Your task to perform on an android device: change the clock style Image 0: 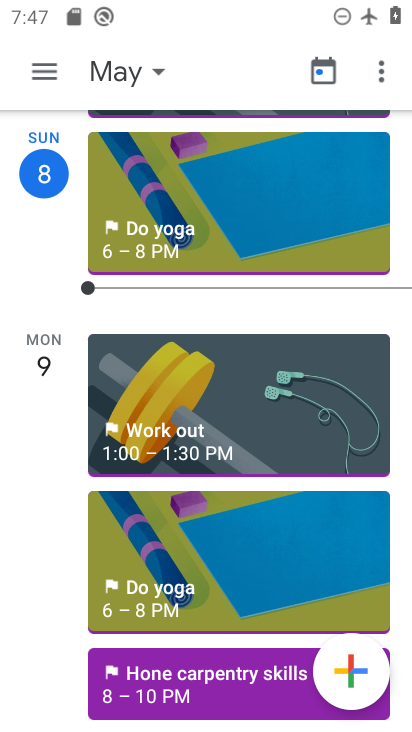
Step 0: press home button
Your task to perform on an android device: change the clock style Image 1: 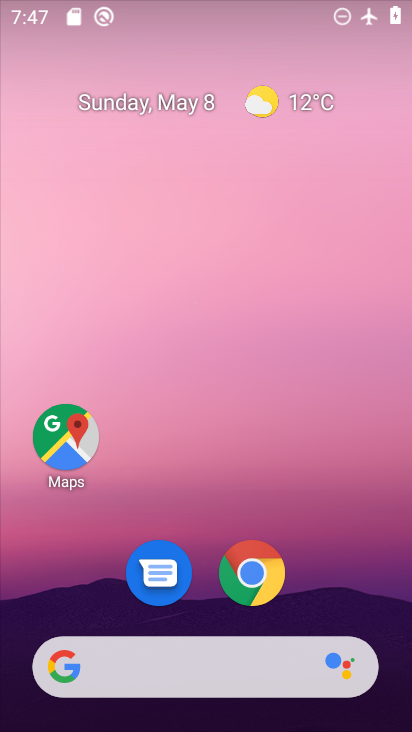
Step 1: drag from (365, 622) to (350, 0)
Your task to perform on an android device: change the clock style Image 2: 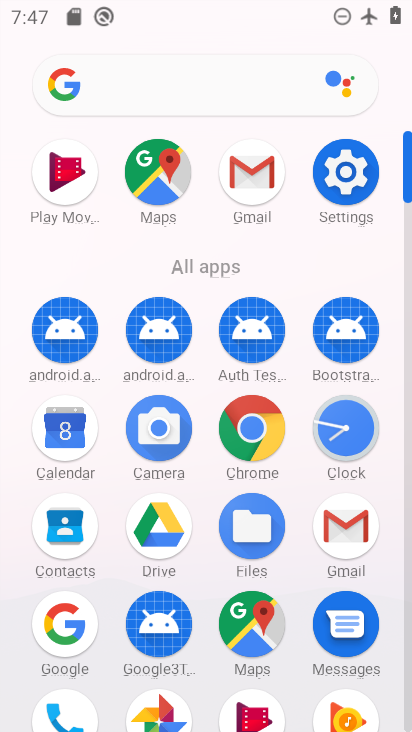
Step 2: click (344, 437)
Your task to perform on an android device: change the clock style Image 3: 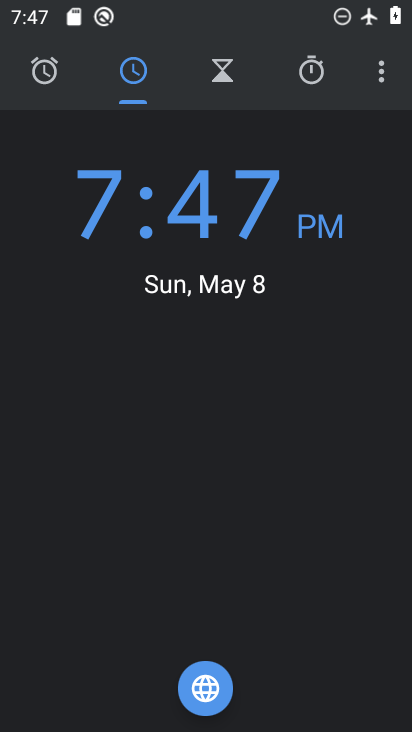
Step 3: click (383, 71)
Your task to perform on an android device: change the clock style Image 4: 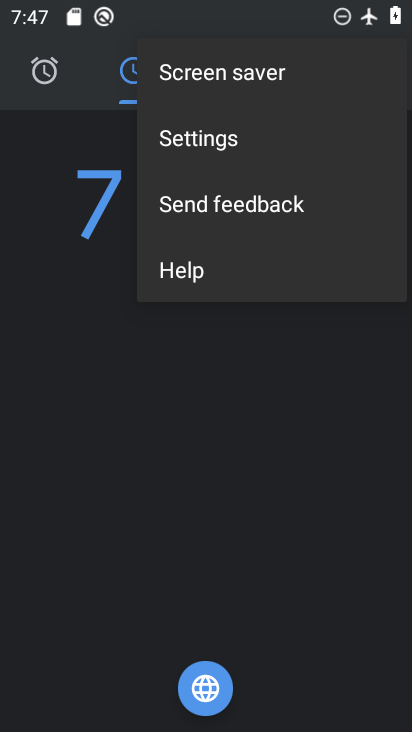
Step 4: click (241, 139)
Your task to perform on an android device: change the clock style Image 5: 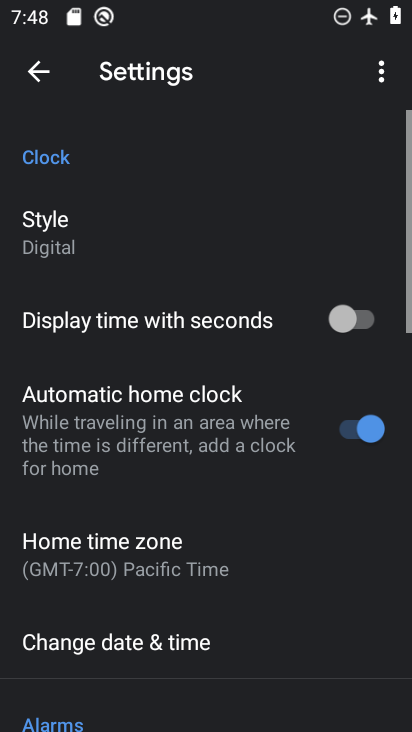
Step 5: click (67, 248)
Your task to perform on an android device: change the clock style Image 6: 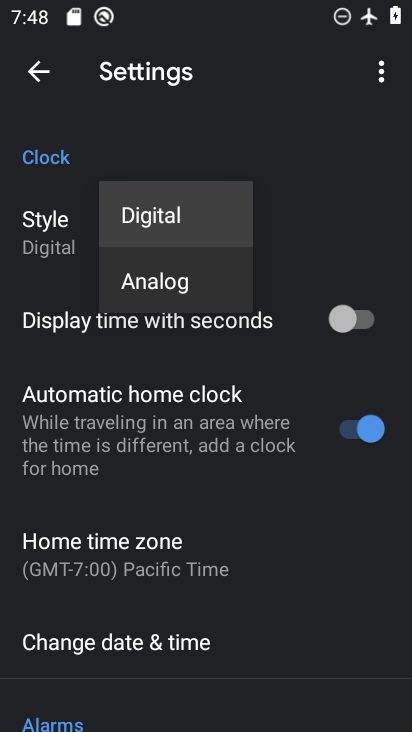
Step 6: click (164, 281)
Your task to perform on an android device: change the clock style Image 7: 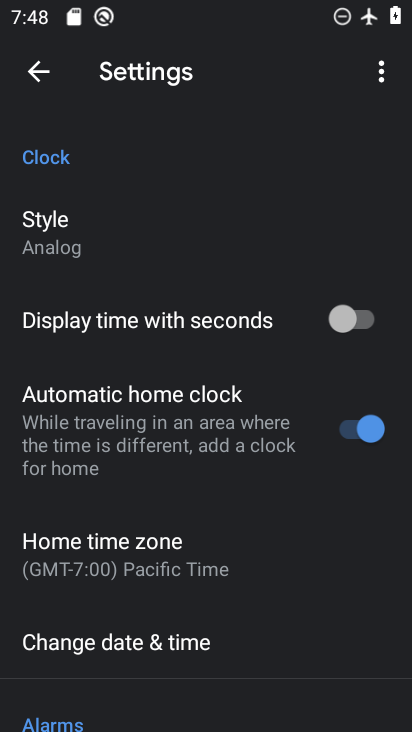
Step 7: task complete